Your task to perform on an android device: remove spam from my inbox in the gmail app Image 0: 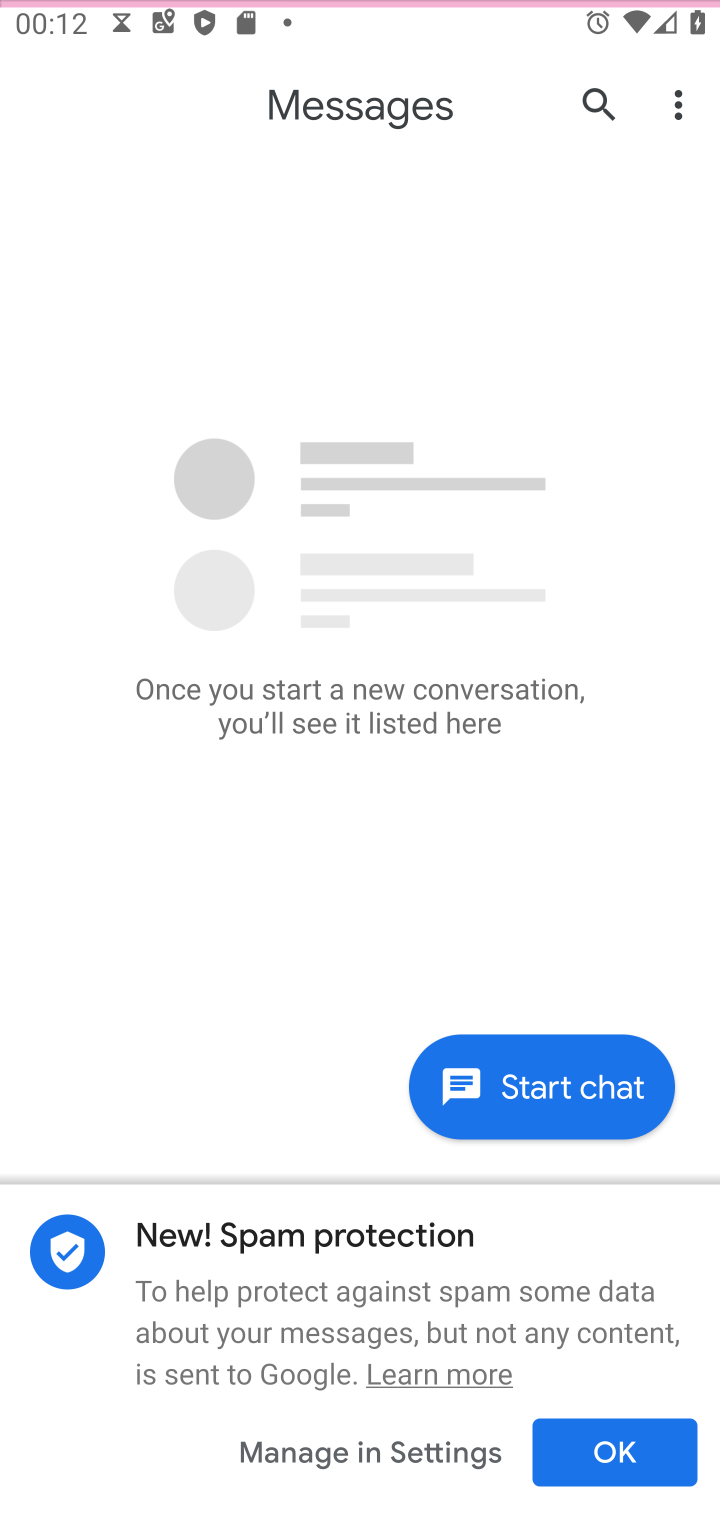
Step 0: press home button
Your task to perform on an android device: remove spam from my inbox in the gmail app Image 1: 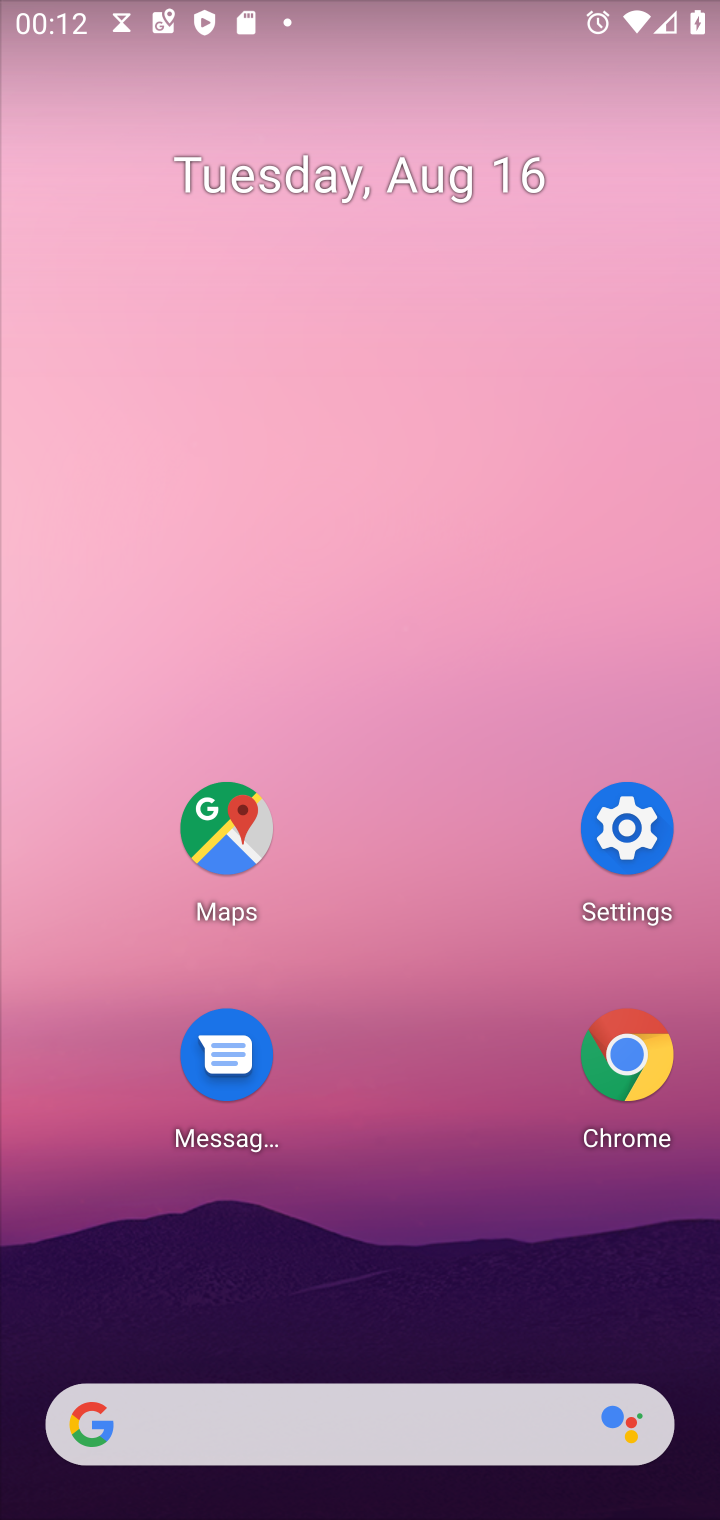
Step 1: drag from (425, 1041) to (544, 159)
Your task to perform on an android device: remove spam from my inbox in the gmail app Image 2: 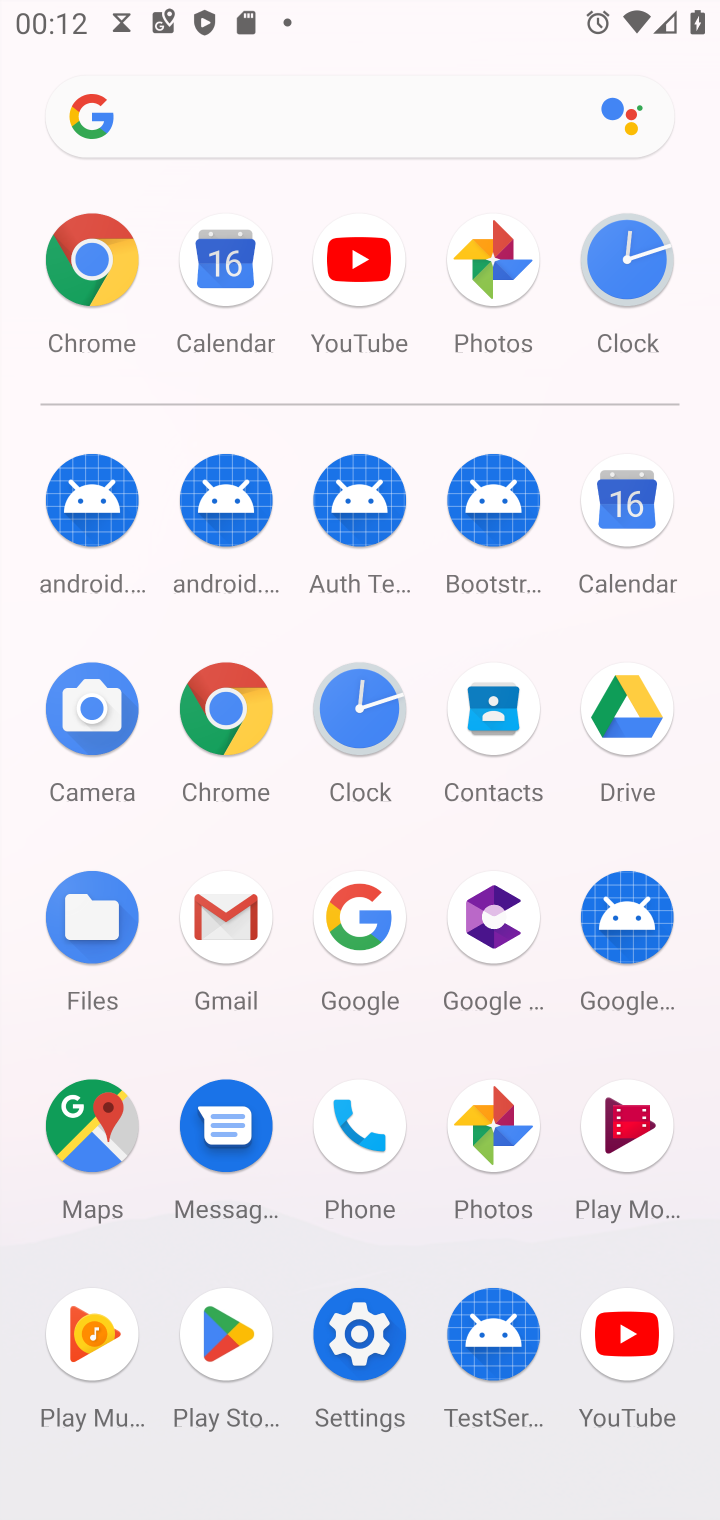
Step 2: click (241, 934)
Your task to perform on an android device: remove spam from my inbox in the gmail app Image 3: 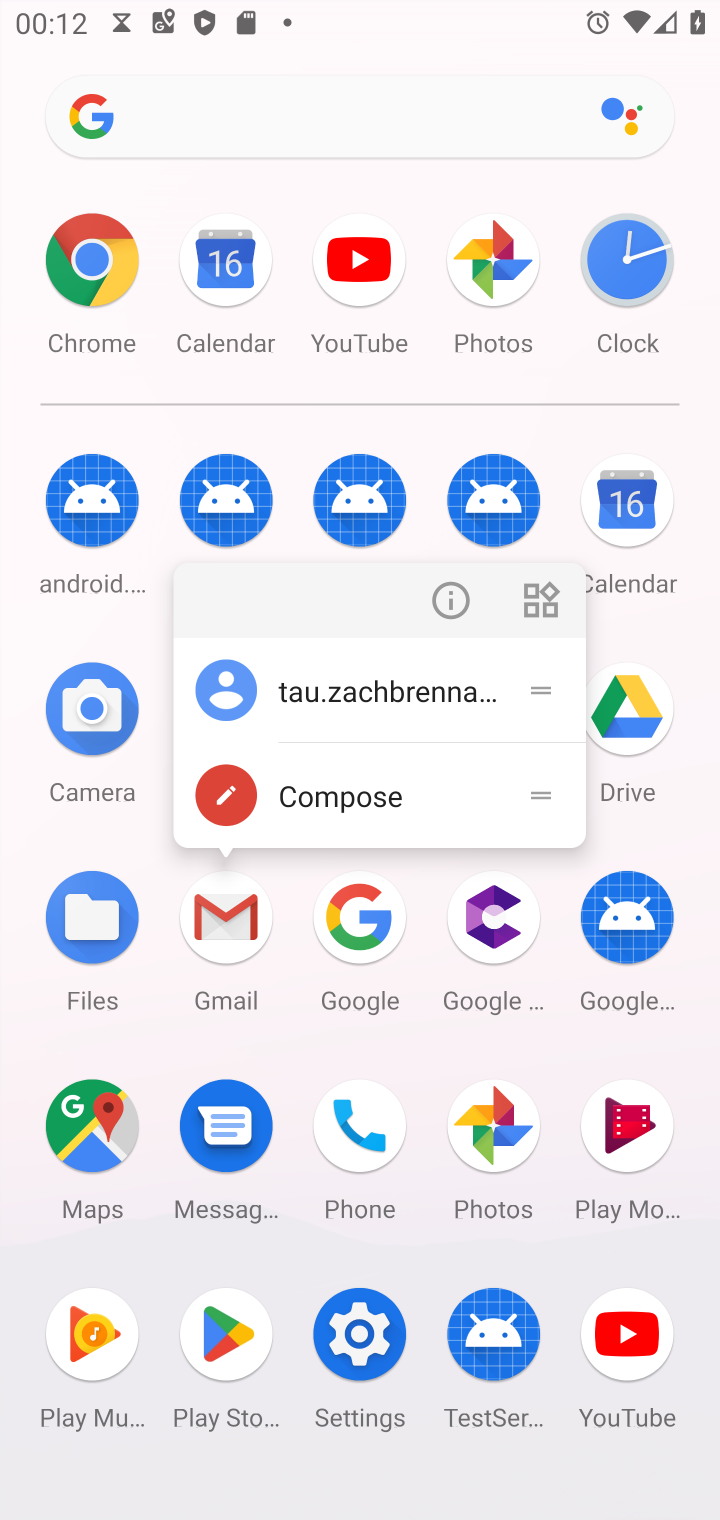
Step 3: click (241, 936)
Your task to perform on an android device: remove spam from my inbox in the gmail app Image 4: 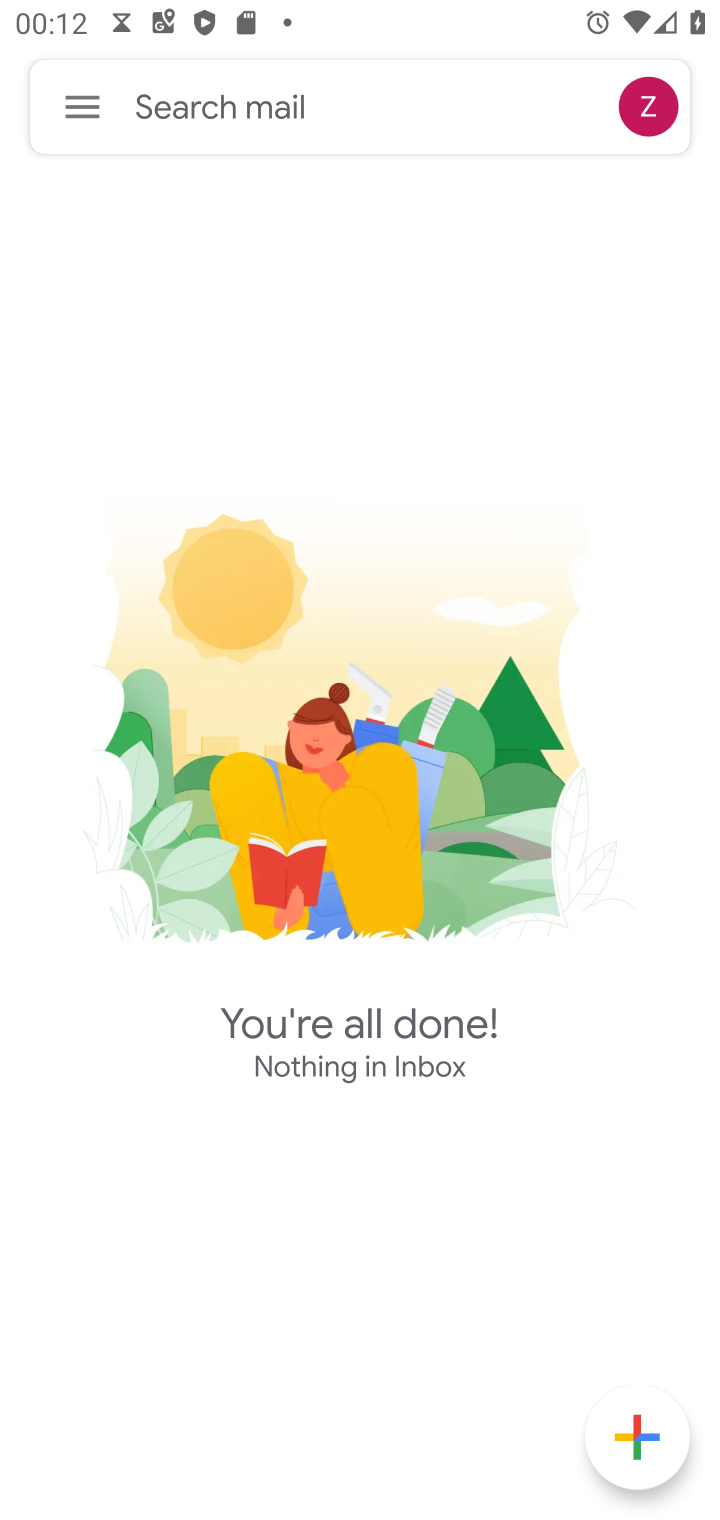
Step 4: click (98, 93)
Your task to perform on an android device: remove spam from my inbox in the gmail app Image 5: 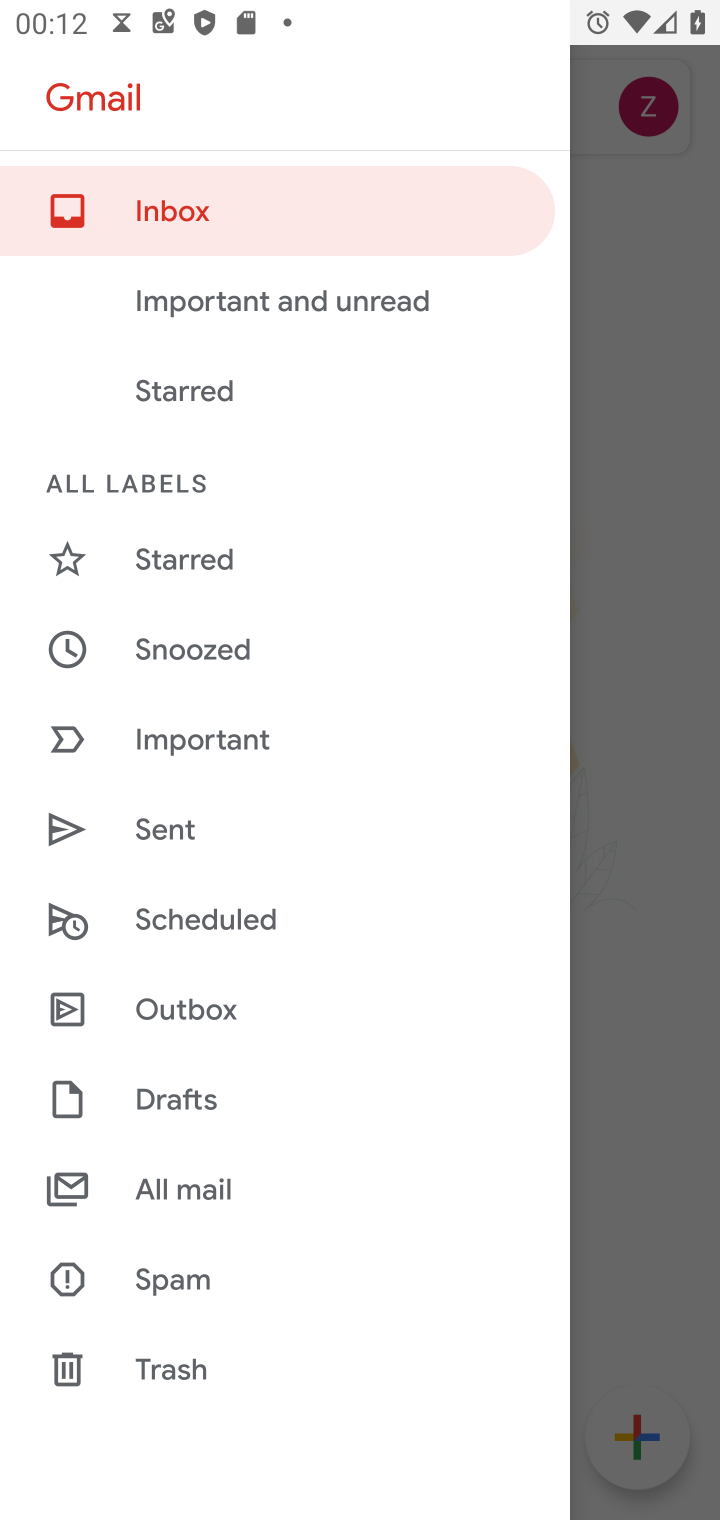
Step 5: click (209, 1280)
Your task to perform on an android device: remove spam from my inbox in the gmail app Image 6: 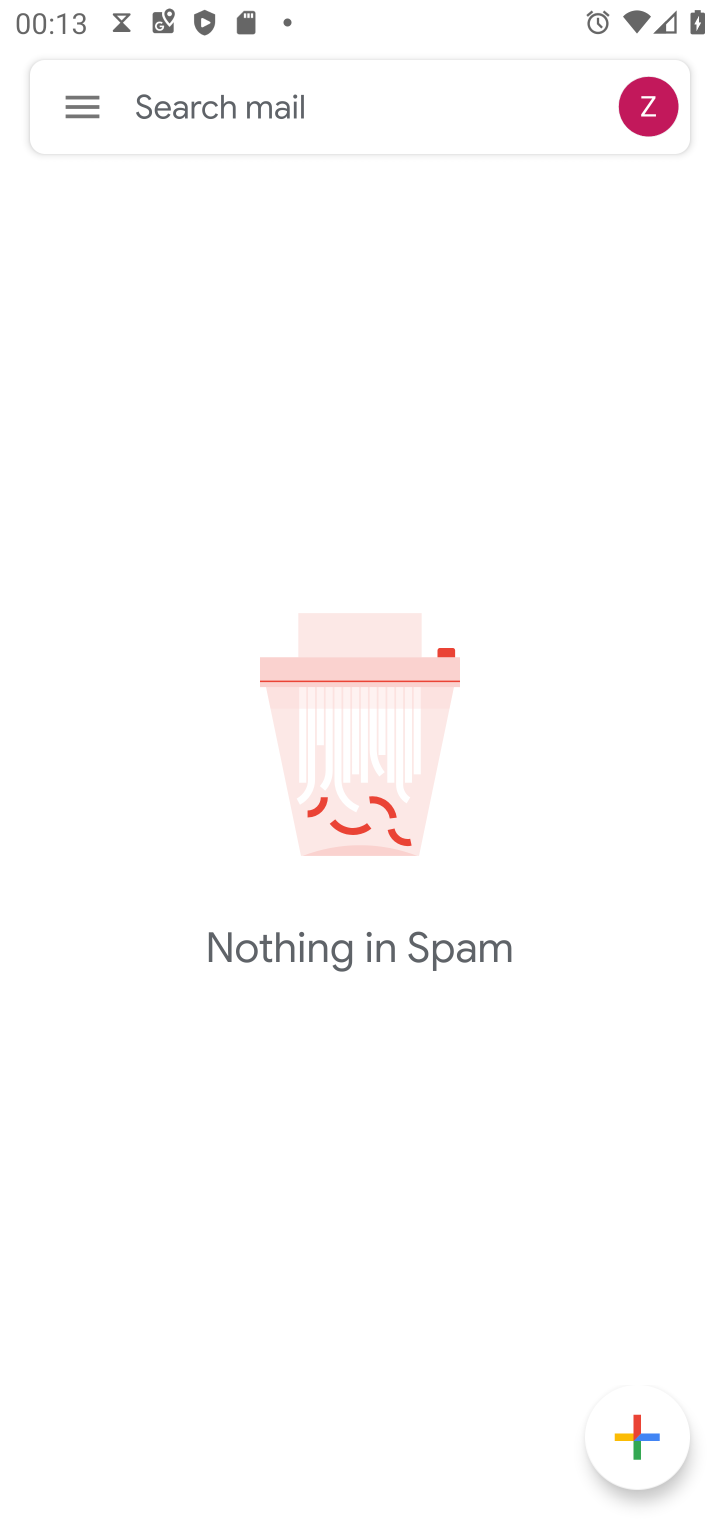
Step 6: task complete